Your task to perform on an android device: open wifi settings Image 0: 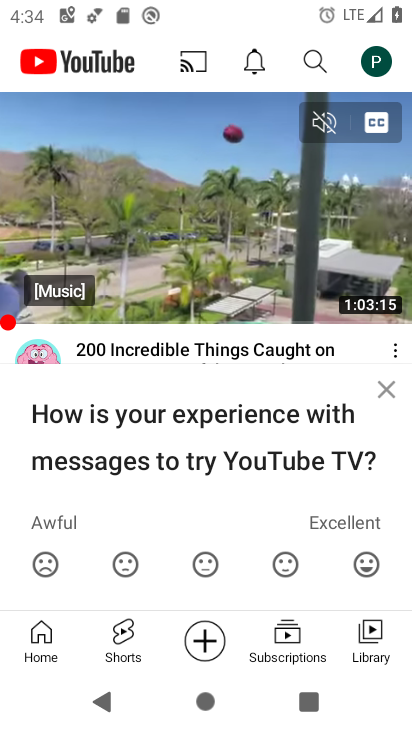
Step 0: press home button
Your task to perform on an android device: open wifi settings Image 1: 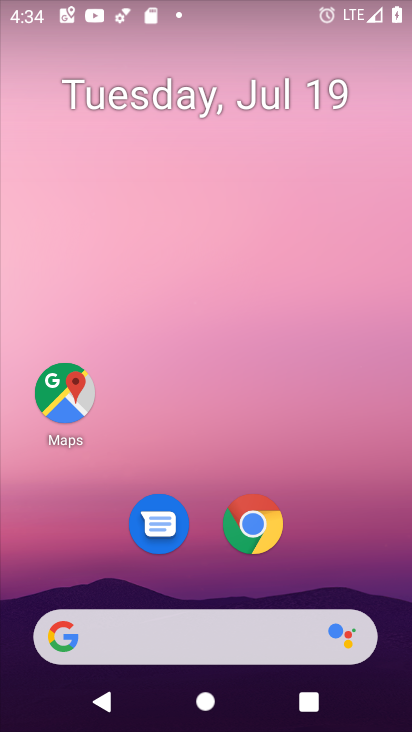
Step 1: drag from (347, 536) to (326, 45)
Your task to perform on an android device: open wifi settings Image 2: 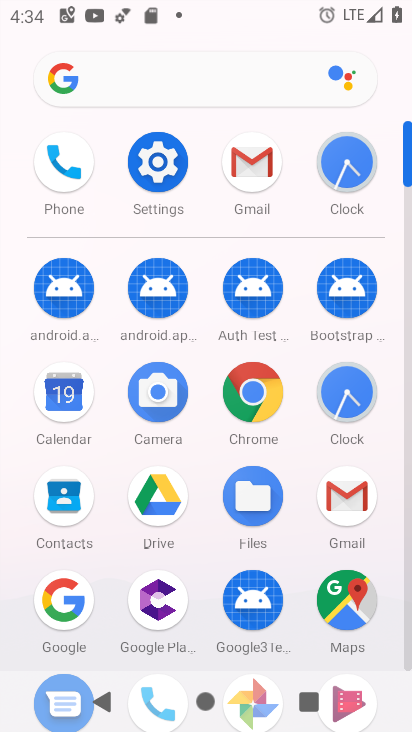
Step 2: click (181, 163)
Your task to perform on an android device: open wifi settings Image 3: 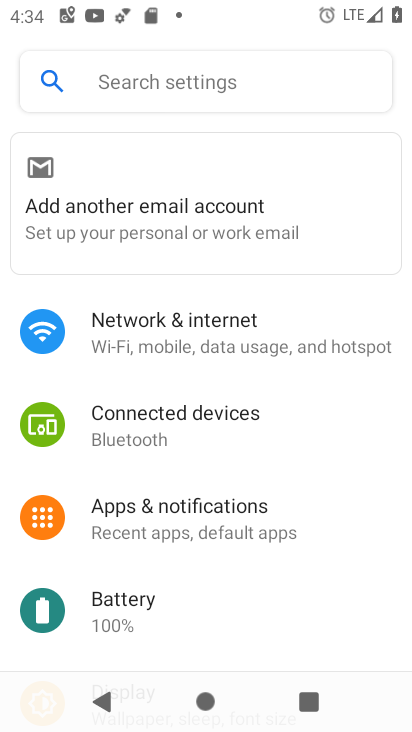
Step 3: click (163, 327)
Your task to perform on an android device: open wifi settings Image 4: 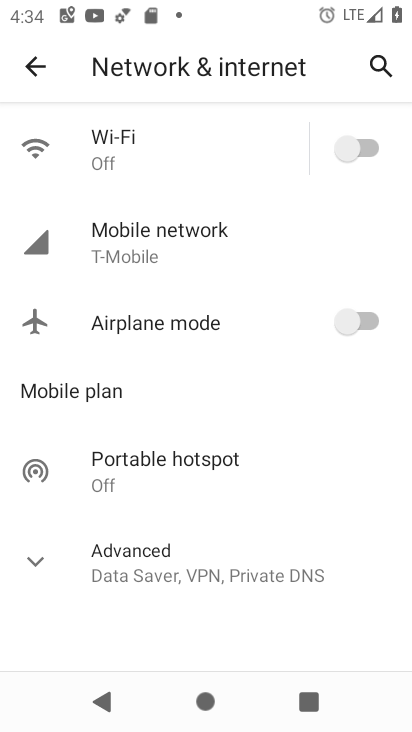
Step 4: click (135, 160)
Your task to perform on an android device: open wifi settings Image 5: 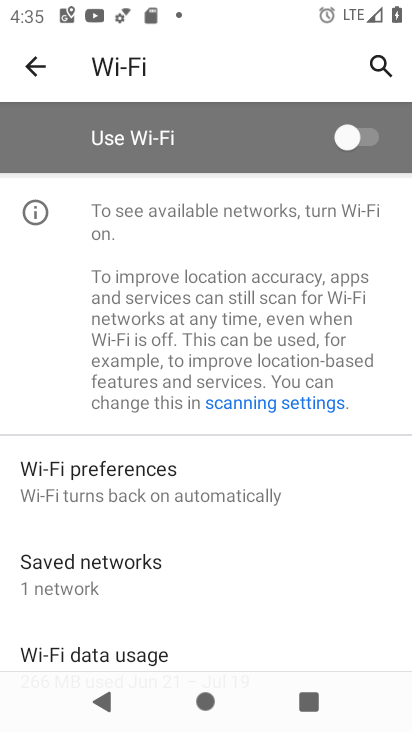
Step 5: task complete